Your task to perform on an android device: What's the weather going to be tomorrow? Image 0: 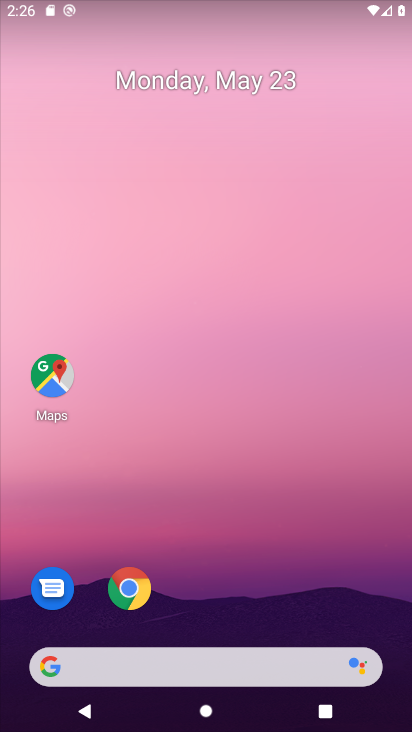
Step 0: drag from (181, 626) to (231, 182)
Your task to perform on an android device: What's the weather going to be tomorrow? Image 1: 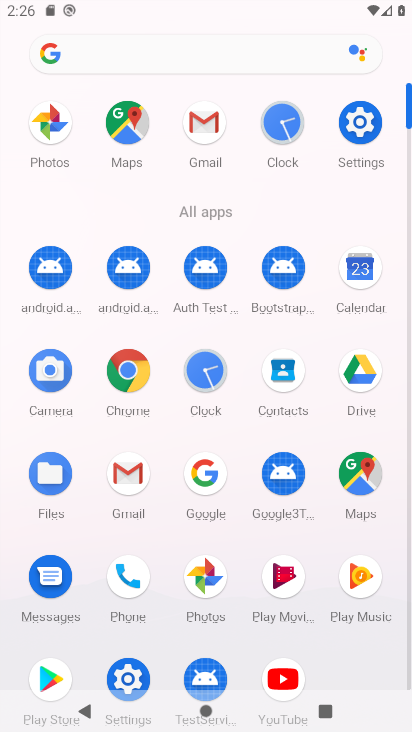
Step 1: click (159, 37)
Your task to perform on an android device: What's the weather going to be tomorrow? Image 2: 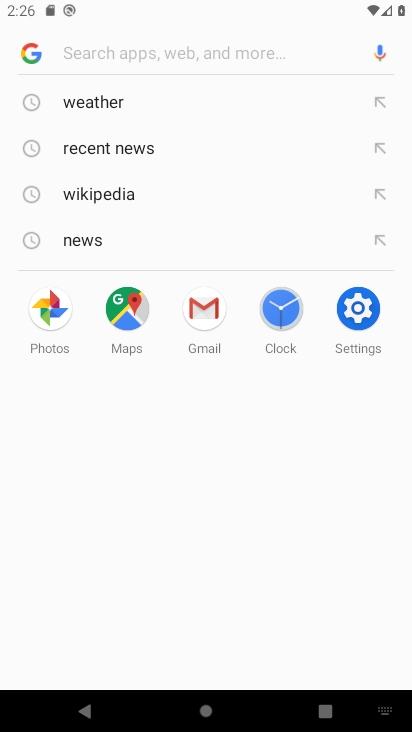
Step 2: type "What's the weather going to be tomorrow?"
Your task to perform on an android device: What's the weather going to be tomorrow? Image 3: 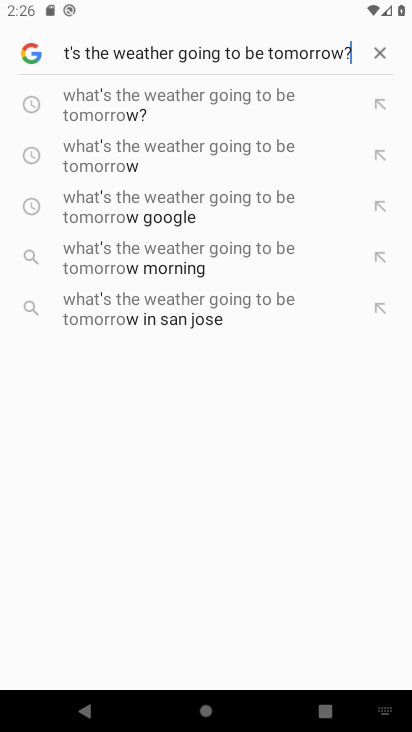
Step 3: type ""
Your task to perform on an android device: What's the weather going to be tomorrow? Image 4: 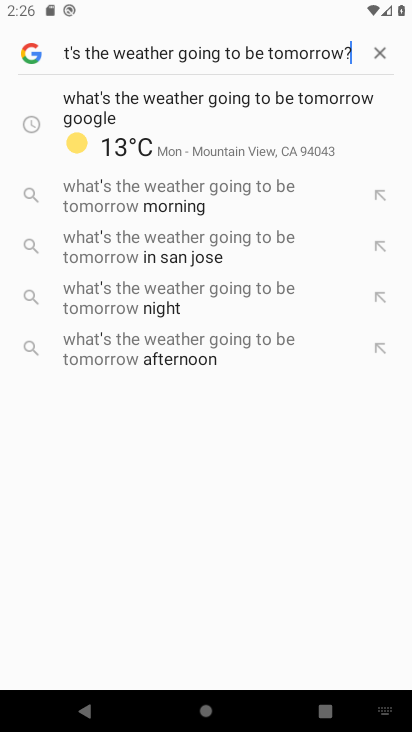
Step 4: click (149, 107)
Your task to perform on an android device: What's the weather going to be tomorrow? Image 5: 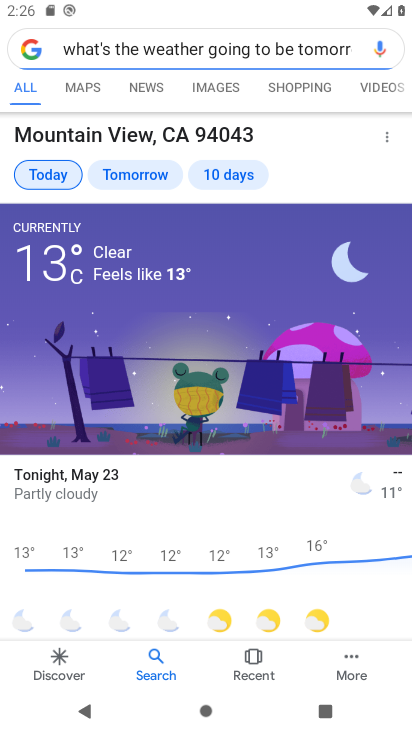
Step 5: task complete